Your task to perform on an android device: turn notification dots off Image 0: 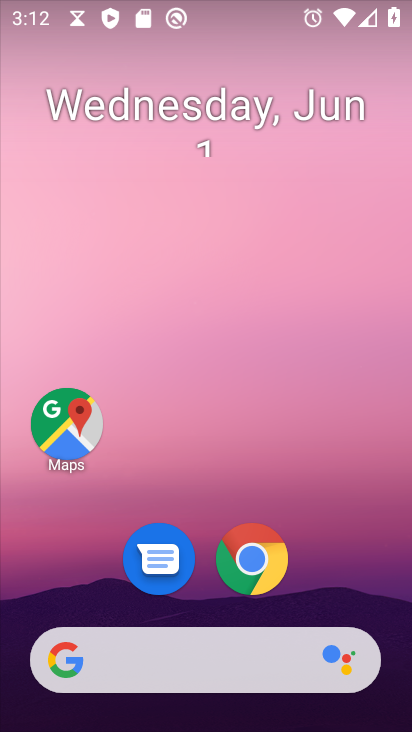
Step 0: drag from (318, 542) to (299, 38)
Your task to perform on an android device: turn notification dots off Image 1: 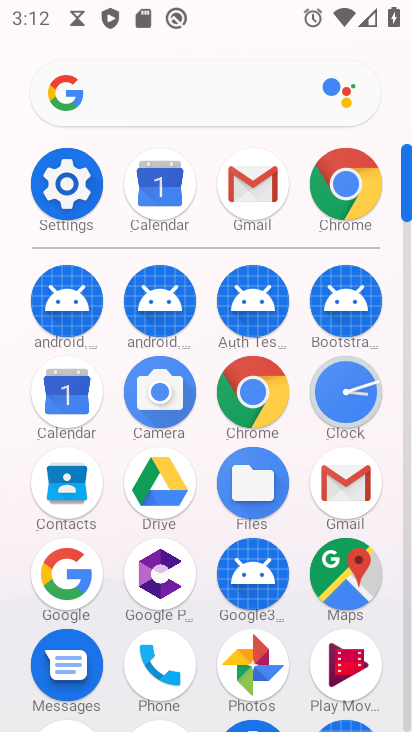
Step 1: click (63, 176)
Your task to perform on an android device: turn notification dots off Image 2: 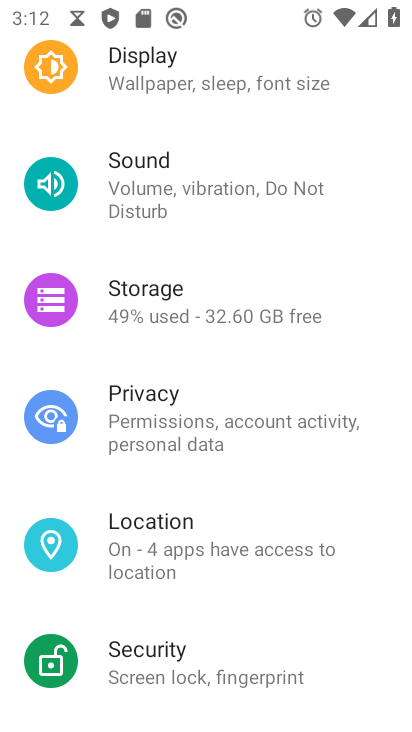
Step 2: drag from (182, 254) to (158, 560)
Your task to perform on an android device: turn notification dots off Image 3: 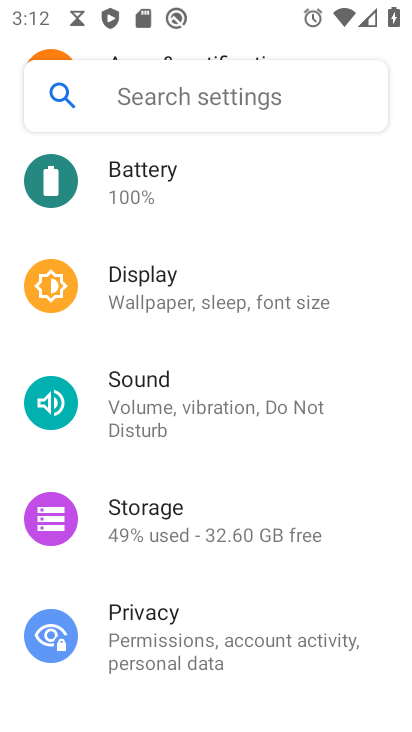
Step 3: drag from (158, 241) to (157, 567)
Your task to perform on an android device: turn notification dots off Image 4: 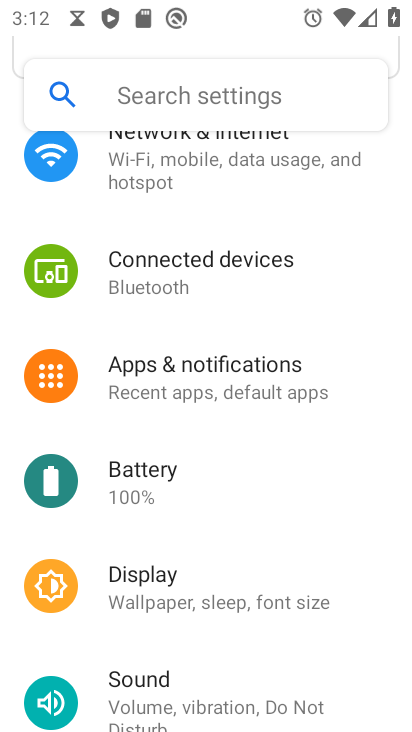
Step 4: click (188, 386)
Your task to perform on an android device: turn notification dots off Image 5: 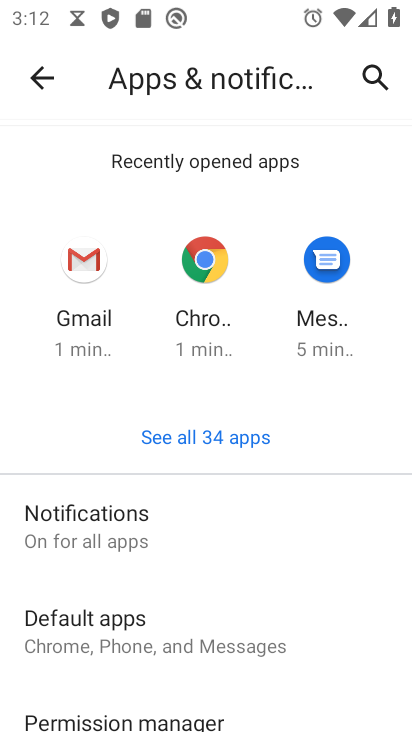
Step 5: click (109, 539)
Your task to perform on an android device: turn notification dots off Image 6: 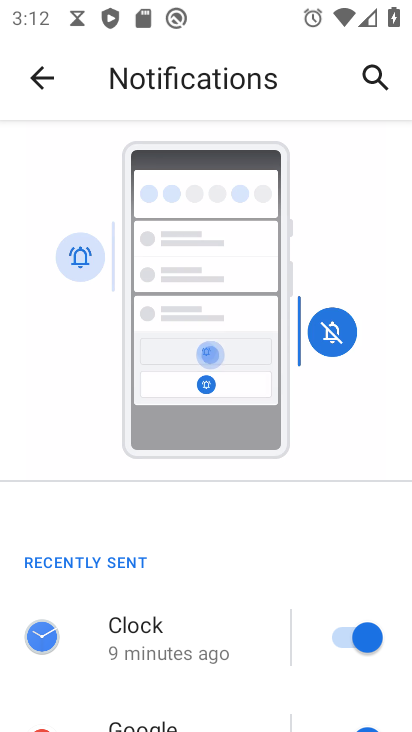
Step 6: drag from (150, 631) to (121, 197)
Your task to perform on an android device: turn notification dots off Image 7: 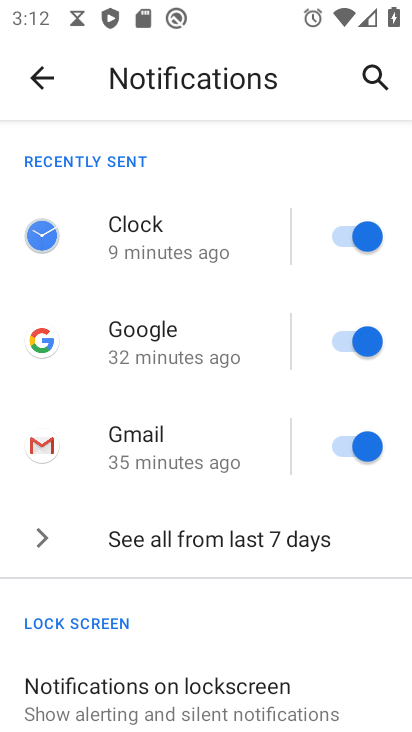
Step 7: drag from (136, 671) to (130, 178)
Your task to perform on an android device: turn notification dots off Image 8: 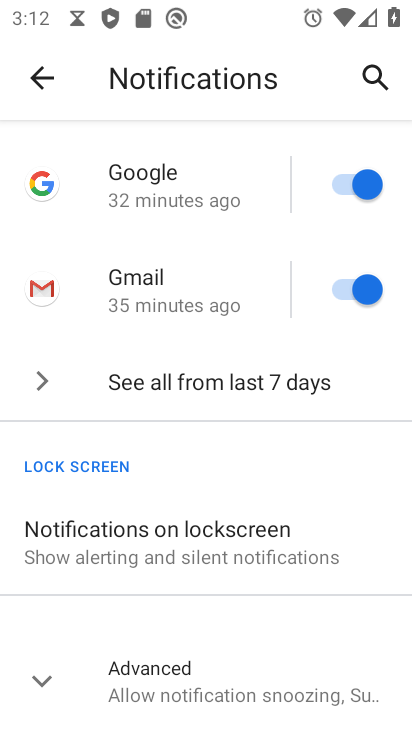
Step 8: click (153, 668)
Your task to perform on an android device: turn notification dots off Image 9: 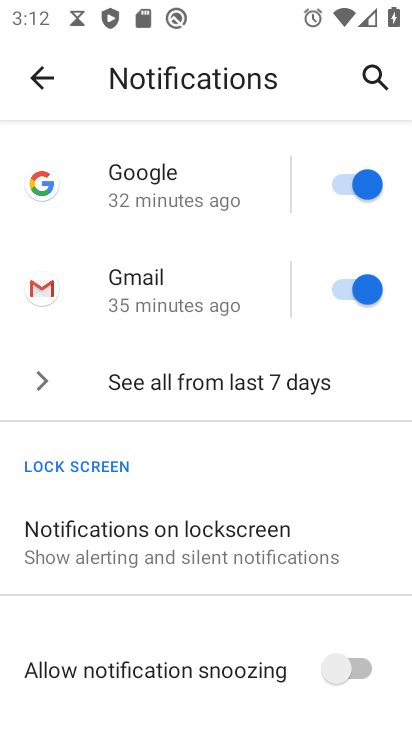
Step 9: task complete